Your task to perform on an android device: Open Wikipedia Image 0: 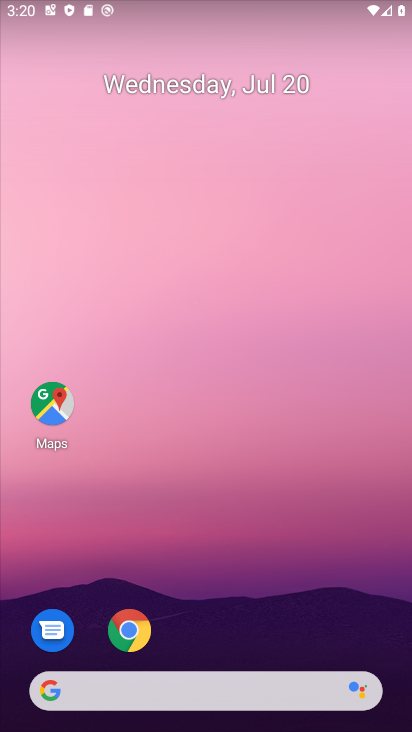
Step 0: press home button
Your task to perform on an android device: Open Wikipedia Image 1: 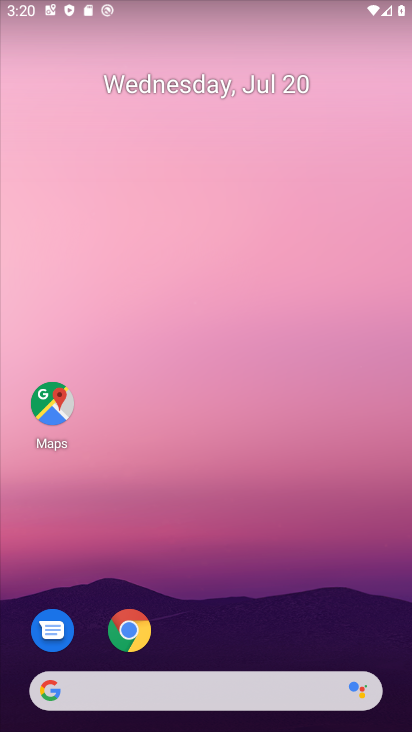
Step 1: click (134, 624)
Your task to perform on an android device: Open Wikipedia Image 2: 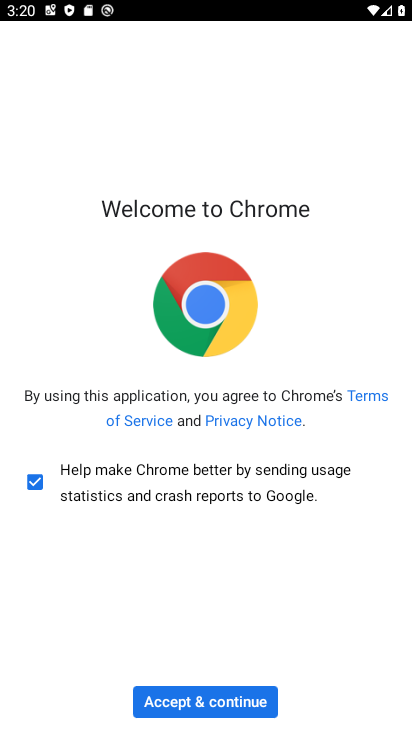
Step 2: click (190, 694)
Your task to perform on an android device: Open Wikipedia Image 3: 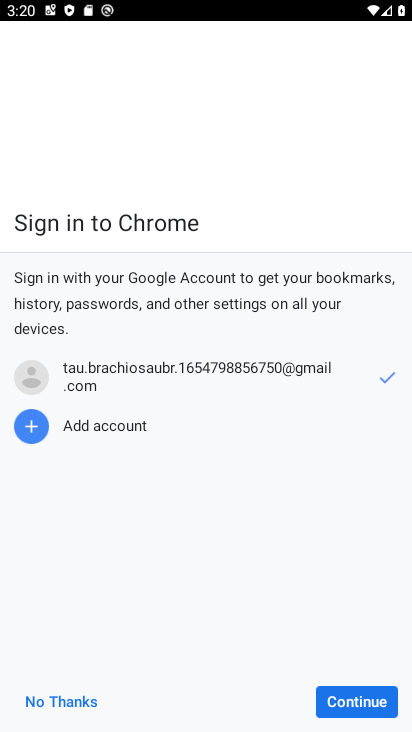
Step 3: click (370, 709)
Your task to perform on an android device: Open Wikipedia Image 4: 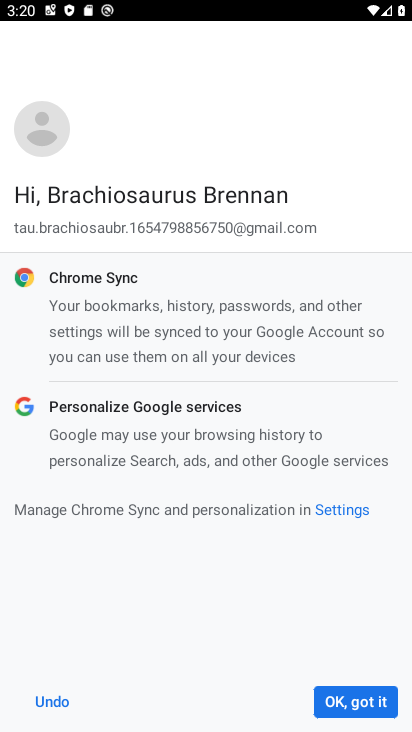
Step 4: click (370, 709)
Your task to perform on an android device: Open Wikipedia Image 5: 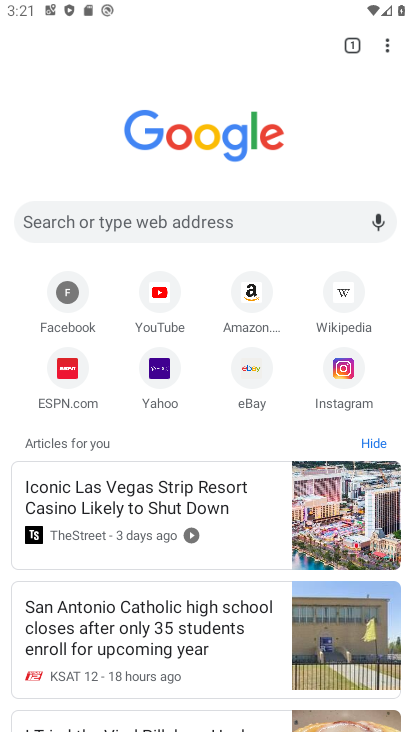
Step 5: click (340, 292)
Your task to perform on an android device: Open Wikipedia Image 6: 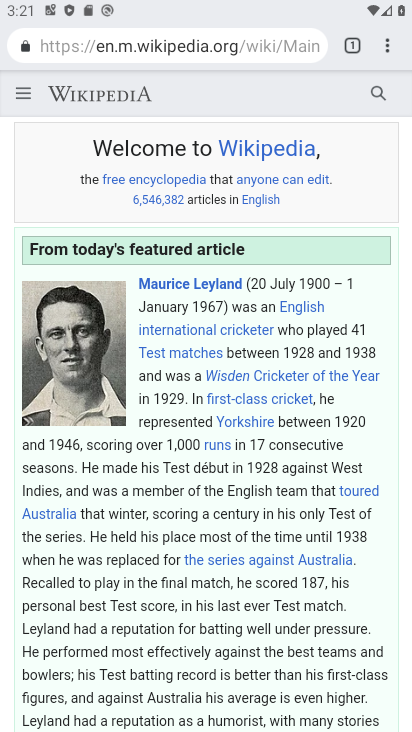
Step 6: task complete